Your task to perform on an android device: open wifi settings Image 0: 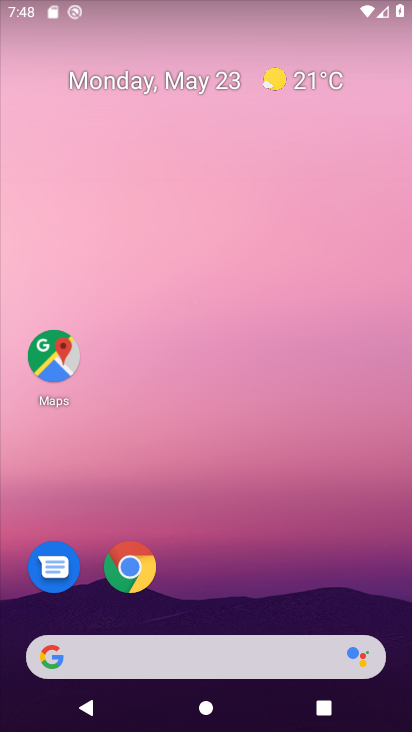
Step 0: click (354, 281)
Your task to perform on an android device: open wifi settings Image 1: 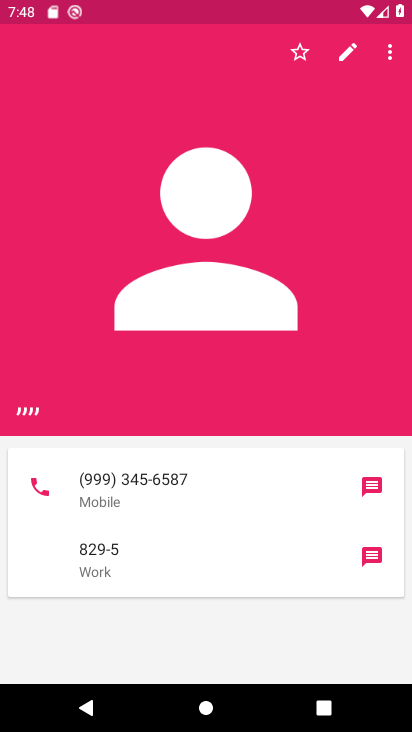
Step 1: press home button
Your task to perform on an android device: open wifi settings Image 2: 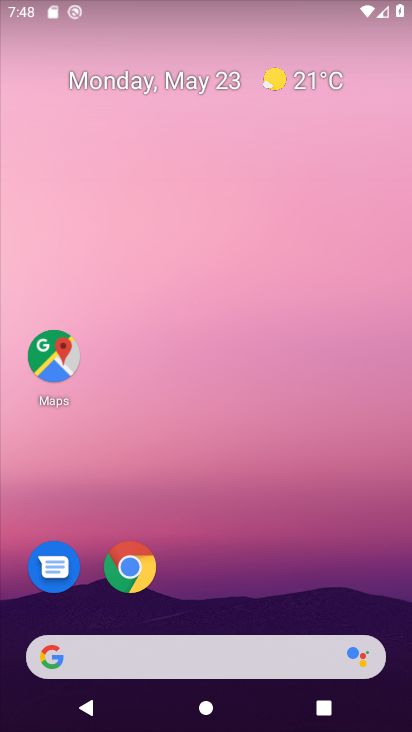
Step 2: drag from (207, 627) to (314, 129)
Your task to perform on an android device: open wifi settings Image 3: 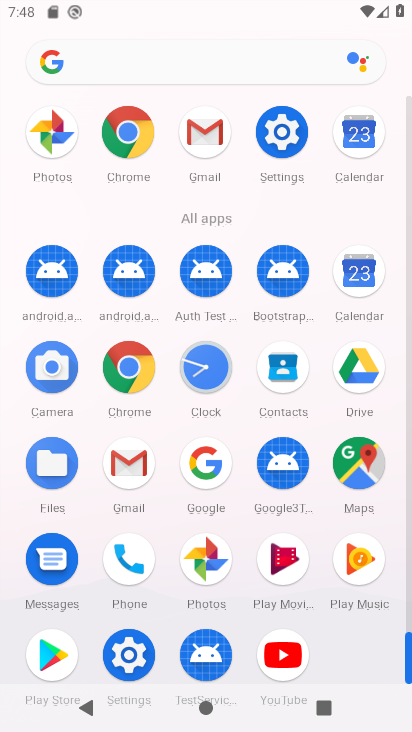
Step 3: click (135, 659)
Your task to perform on an android device: open wifi settings Image 4: 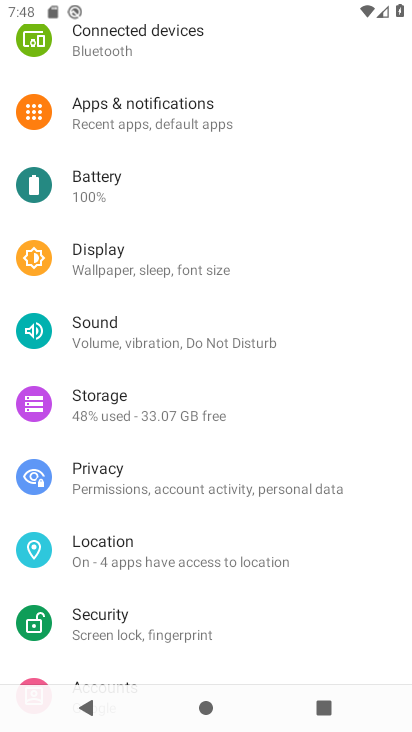
Step 4: task complete